Your task to perform on an android device: turn pop-ups off in chrome Image 0: 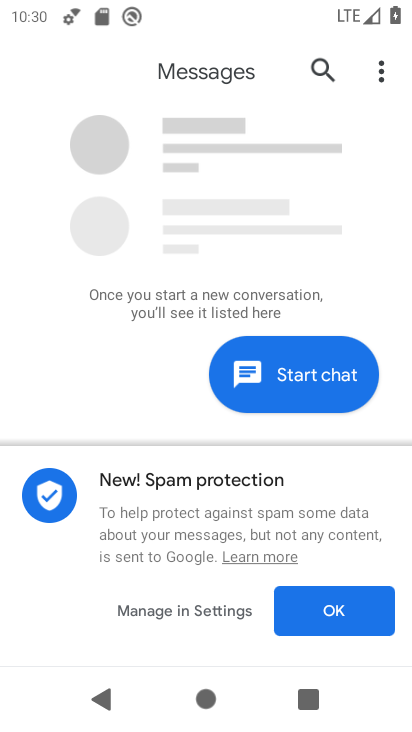
Step 0: press home button
Your task to perform on an android device: turn pop-ups off in chrome Image 1: 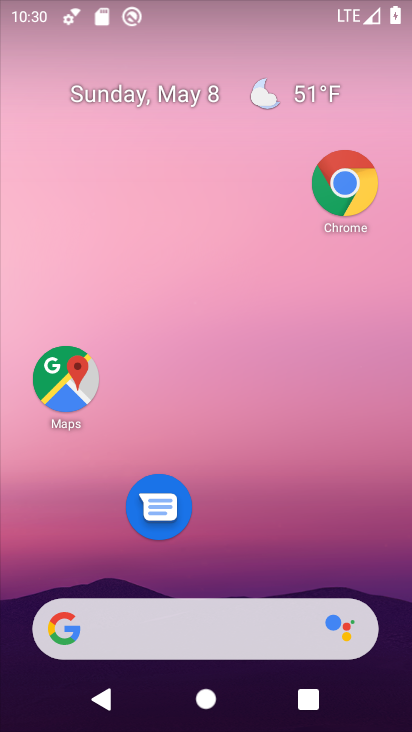
Step 1: drag from (222, 586) to (257, 35)
Your task to perform on an android device: turn pop-ups off in chrome Image 2: 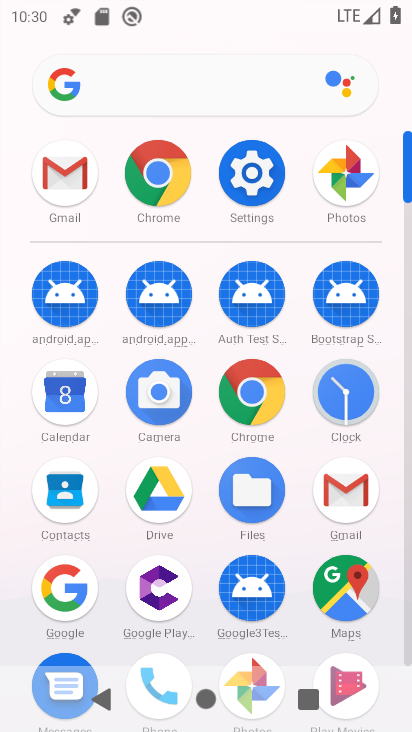
Step 2: click (148, 175)
Your task to perform on an android device: turn pop-ups off in chrome Image 3: 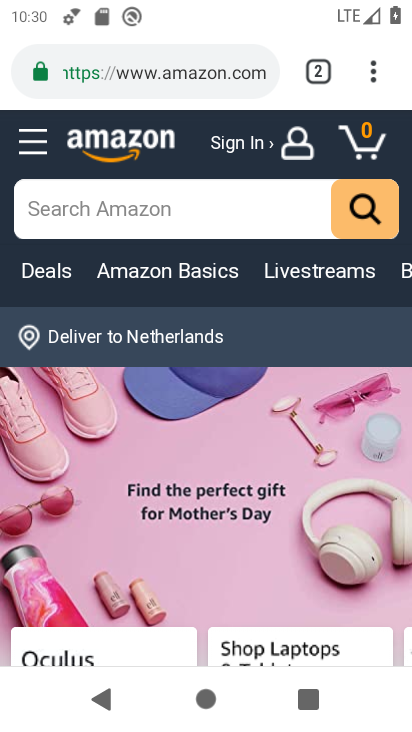
Step 3: click (376, 69)
Your task to perform on an android device: turn pop-ups off in chrome Image 4: 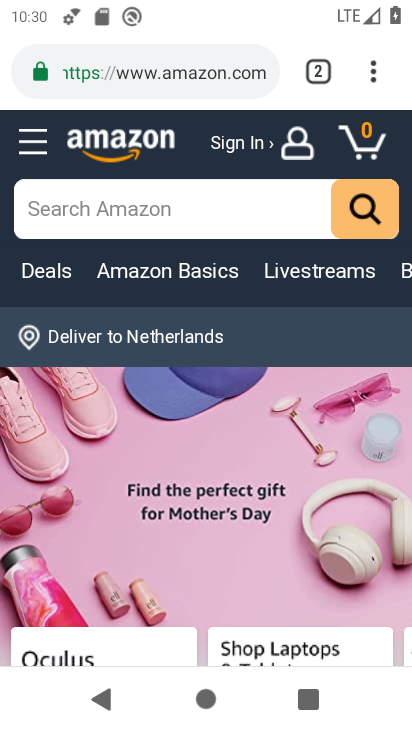
Step 4: click (372, 63)
Your task to perform on an android device: turn pop-ups off in chrome Image 5: 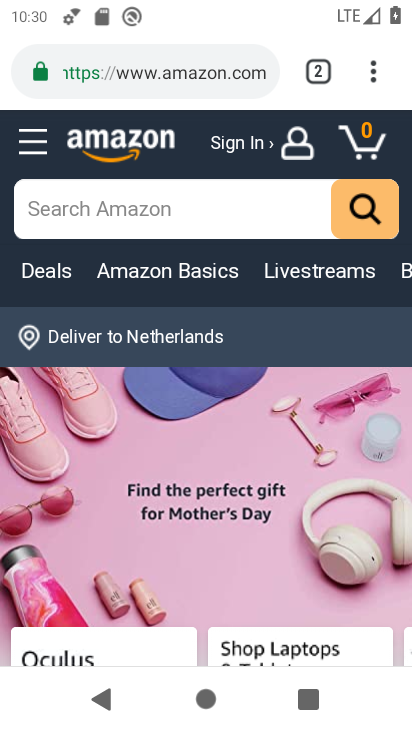
Step 5: click (356, 69)
Your task to perform on an android device: turn pop-ups off in chrome Image 6: 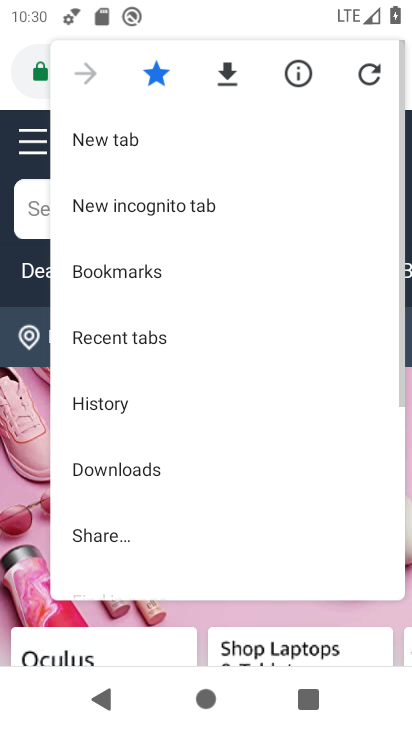
Step 6: drag from (186, 539) to (225, 110)
Your task to perform on an android device: turn pop-ups off in chrome Image 7: 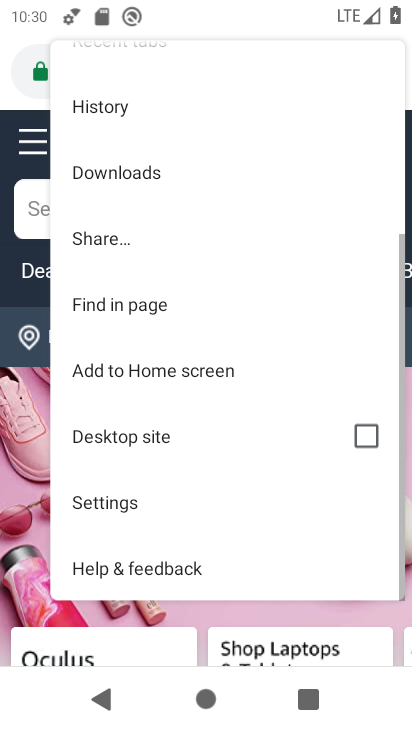
Step 7: click (137, 504)
Your task to perform on an android device: turn pop-ups off in chrome Image 8: 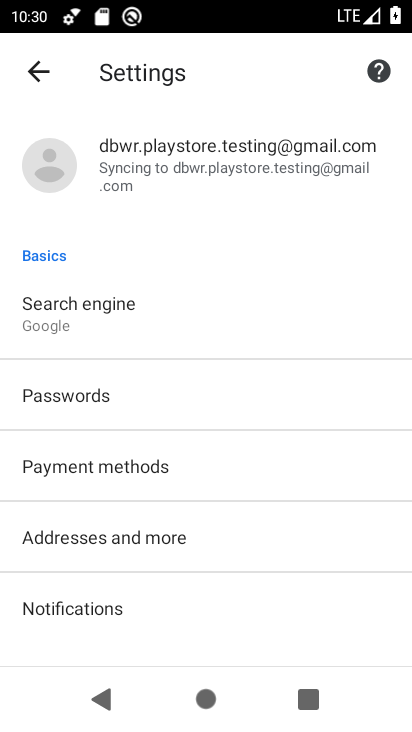
Step 8: drag from (197, 539) to (228, 102)
Your task to perform on an android device: turn pop-ups off in chrome Image 9: 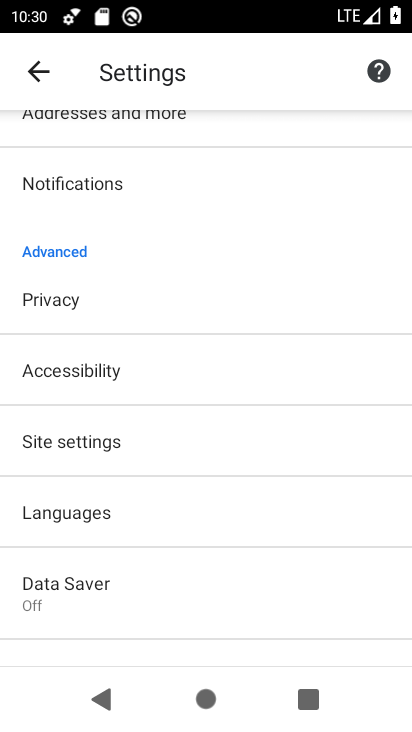
Step 9: click (151, 438)
Your task to perform on an android device: turn pop-ups off in chrome Image 10: 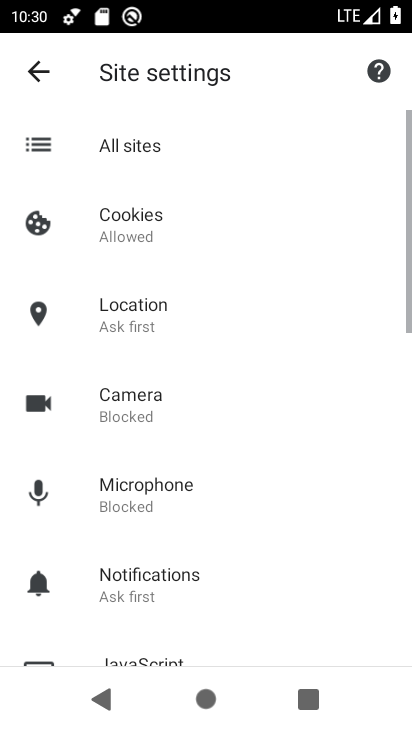
Step 10: drag from (215, 572) to (252, 126)
Your task to perform on an android device: turn pop-ups off in chrome Image 11: 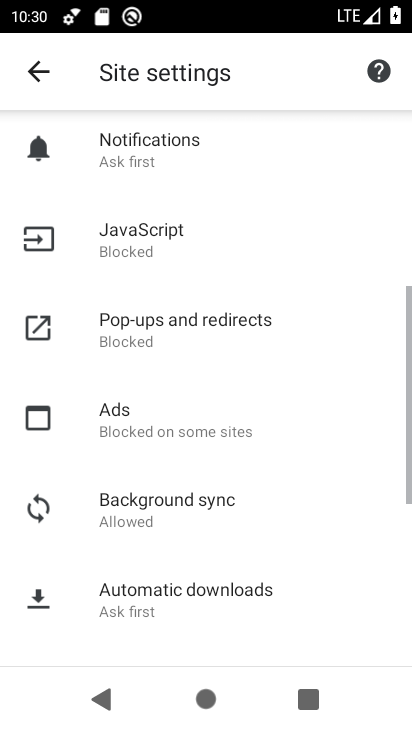
Step 11: click (162, 331)
Your task to perform on an android device: turn pop-ups off in chrome Image 12: 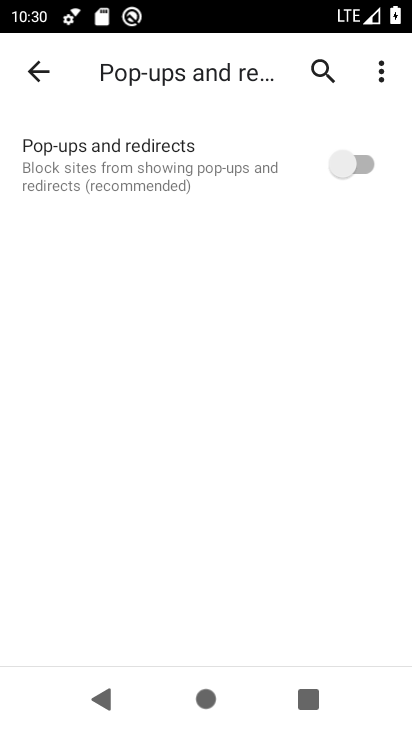
Step 12: task complete